Your task to perform on an android device: Open Chrome and go to settings Image 0: 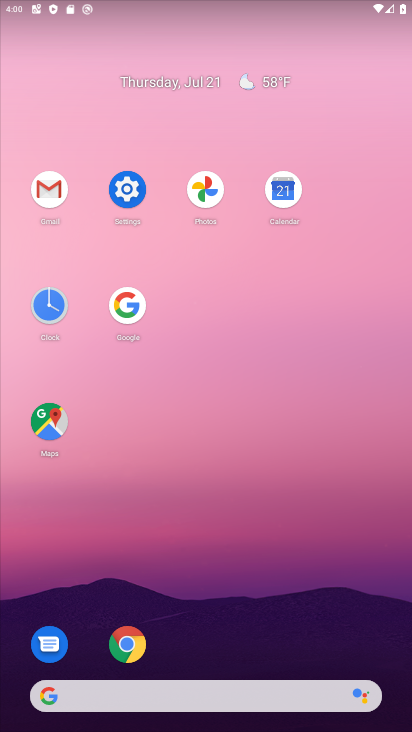
Step 0: click (126, 643)
Your task to perform on an android device: Open Chrome and go to settings Image 1: 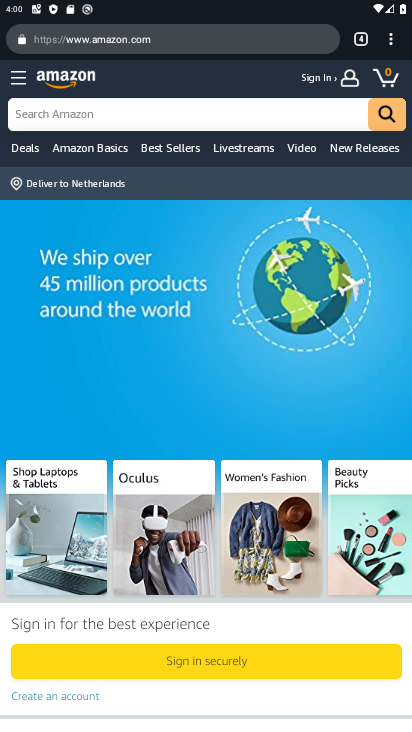
Step 1: click (391, 29)
Your task to perform on an android device: Open Chrome and go to settings Image 2: 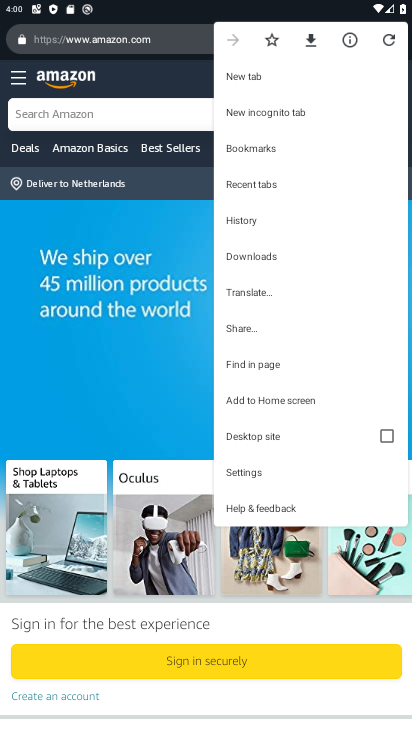
Step 2: click (263, 474)
Your task to perform on an android device: Open Chrome and go to settings Image 3: 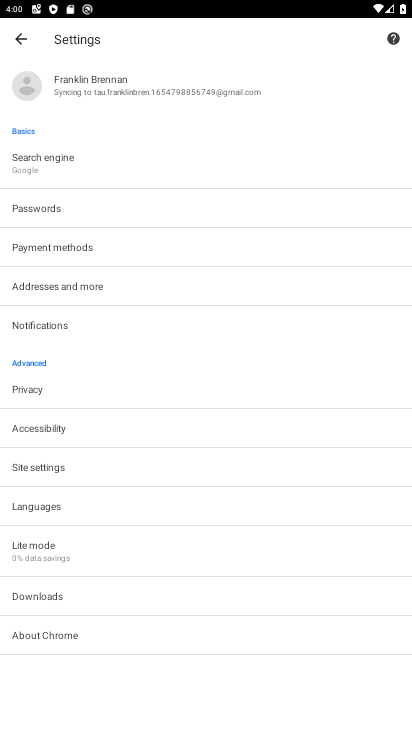
Step 3: task complete